Your task to perform on an android device: What is the news today? Image 0: 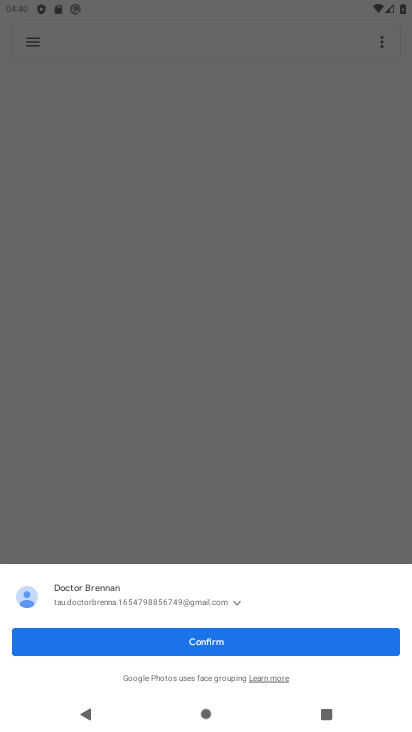
Step 0: press home button
Your task to perform on an android device: What is the news today? Image 1: 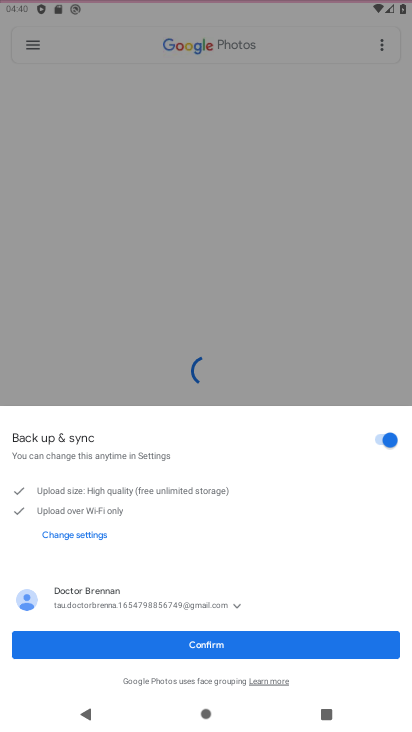
Step 1: press home button
Your task to perform on an android device: What is the news today? Image 2: 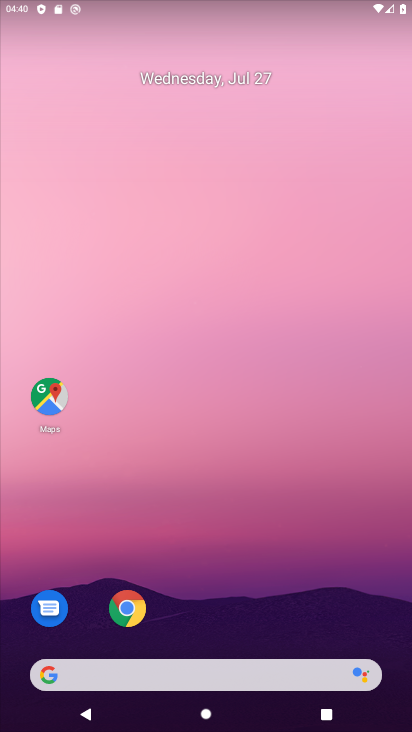
Step 2: click (46, 673)
Your task to perform on an android device: What is the news today? Image 3: 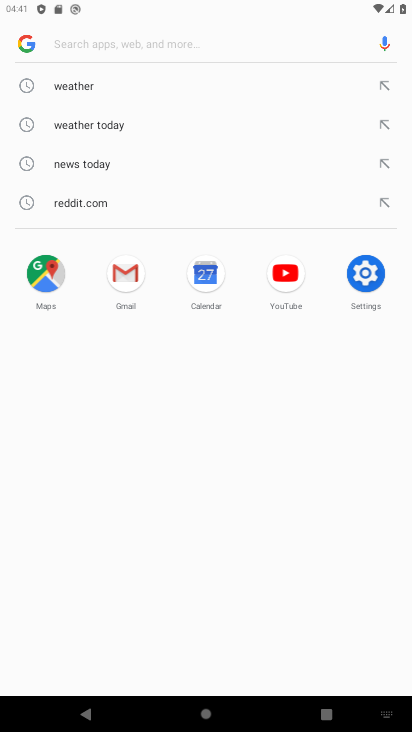
Step 3: click (91, 162)
Your task to perform on an android device: What is the news today? Image 4: 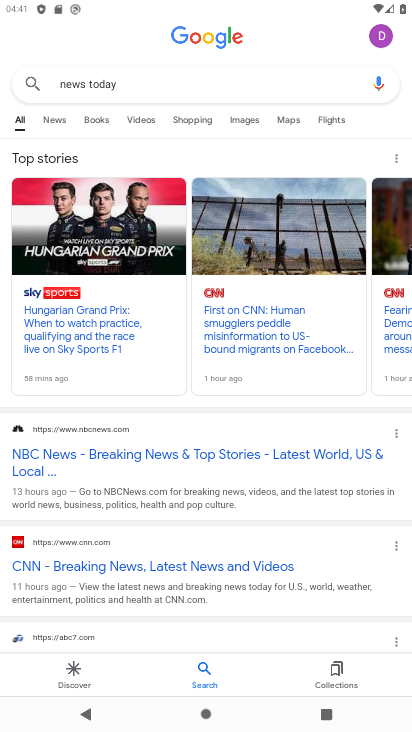
Step 4: task complete